Your task to perform on an android device: change the clock display to digital Image 0: 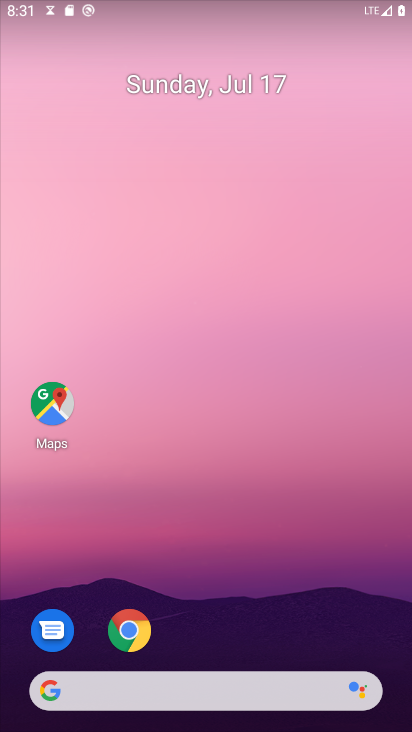
Step 0: drag from (187, 609) to (177, 0)
Your task to perform on an android device: change the clock display to digital Image 1: 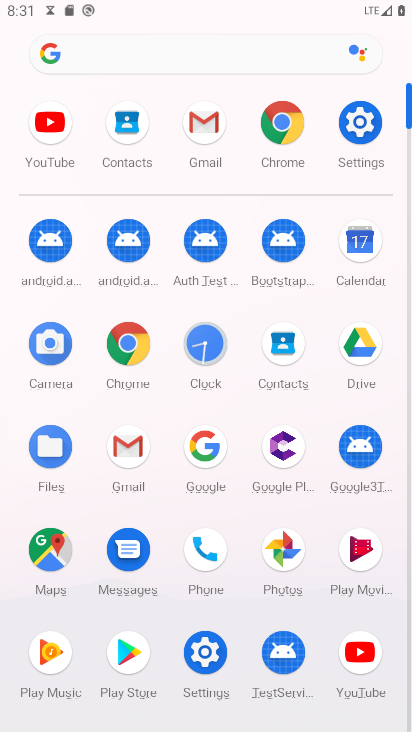
Step 1: click (196, 361)
Your task to perform on an android device: change the clock display to digital Image 2: 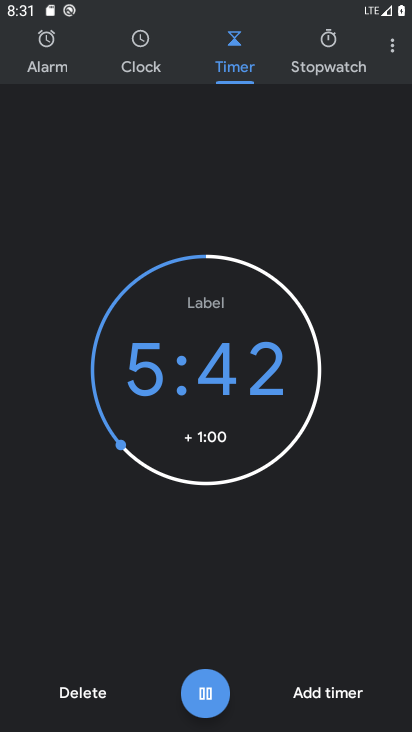
Step 2: click (384, 50)
Your task to perform on an android device: change the clock display to digital Image 3: 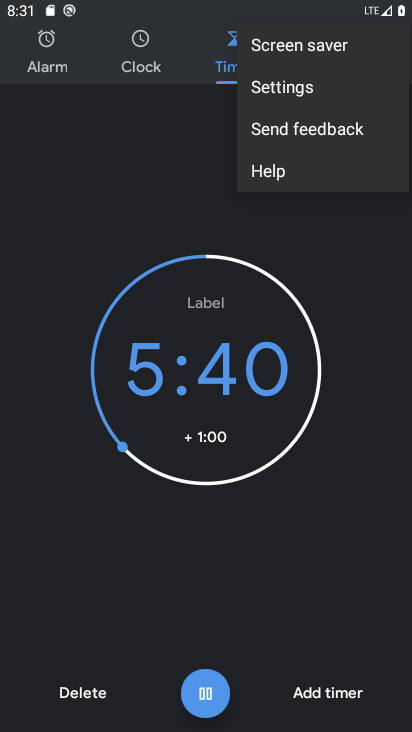
Step 3: click (257, 91)
Your task to perform on an android device: change the clock display to digital Image 4: 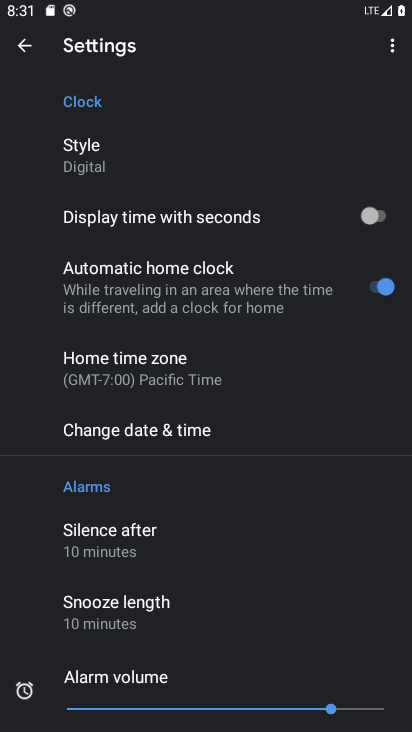
Step 4: click (108, 162)
Your task to perform on an android device: change the clock display to digital Image 5: 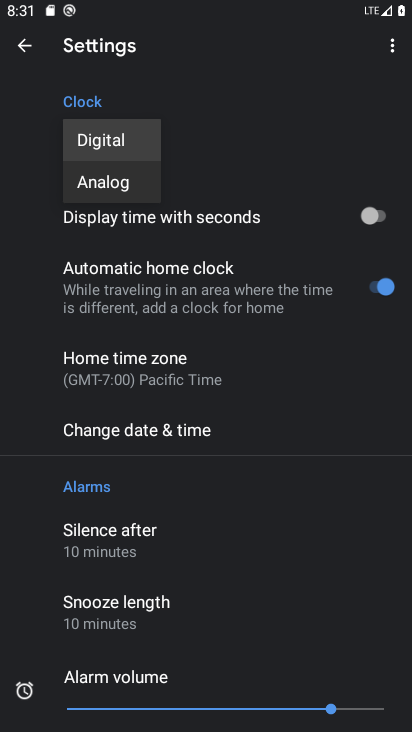
Step 5: task complete